Your task to perform on an android device: open app "eBay: The shopping marketplace" Image 0: 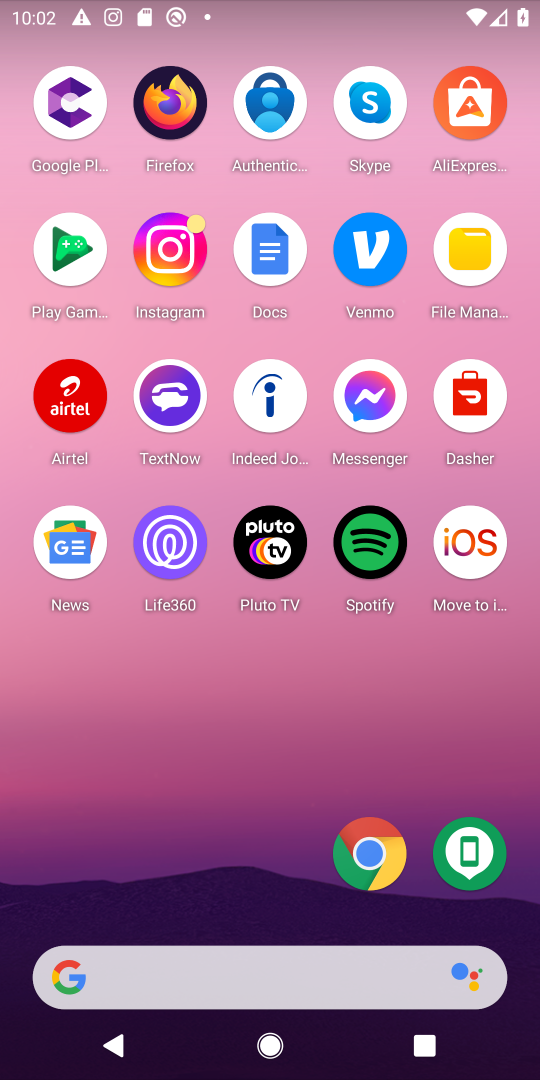
Step 0: drag from (213, 878) to (339, 44)
Your task to perform on an android device: open app "eBay: The shopping marketplace" Image 1: 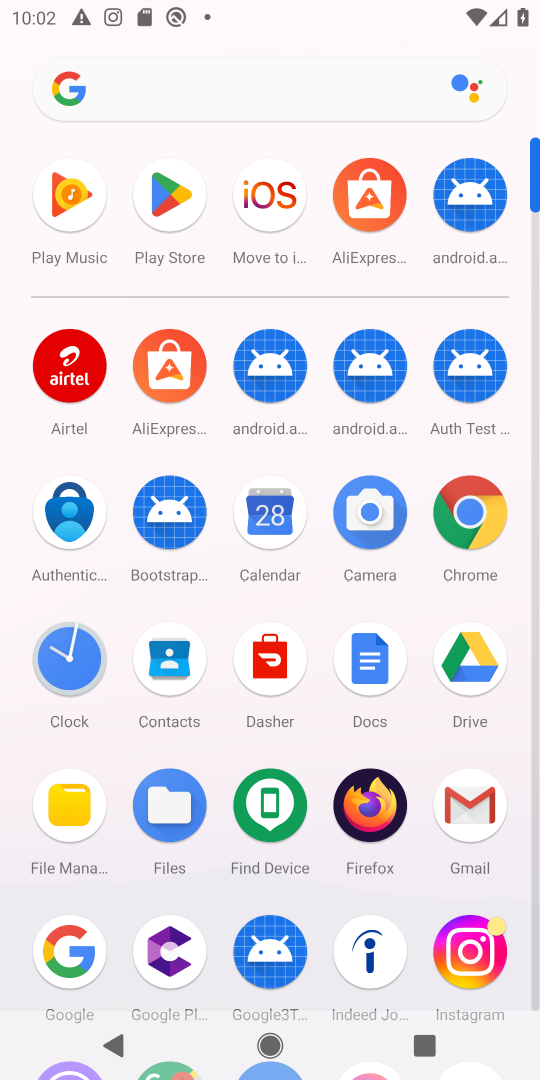
Step 1: click (189, 205)
Your task to perform on an android device: open app "eBay: The shopping marketplace" Image 2: 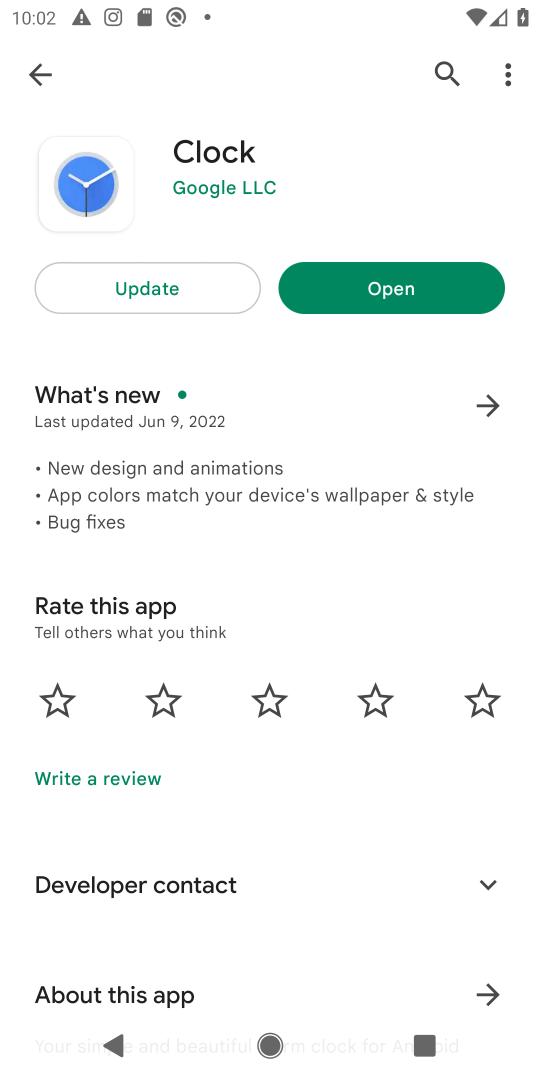
Step 2: click (42, 72)
Your task to perform on an android device: open app "eBay: The shopping marketplace" Image 3: 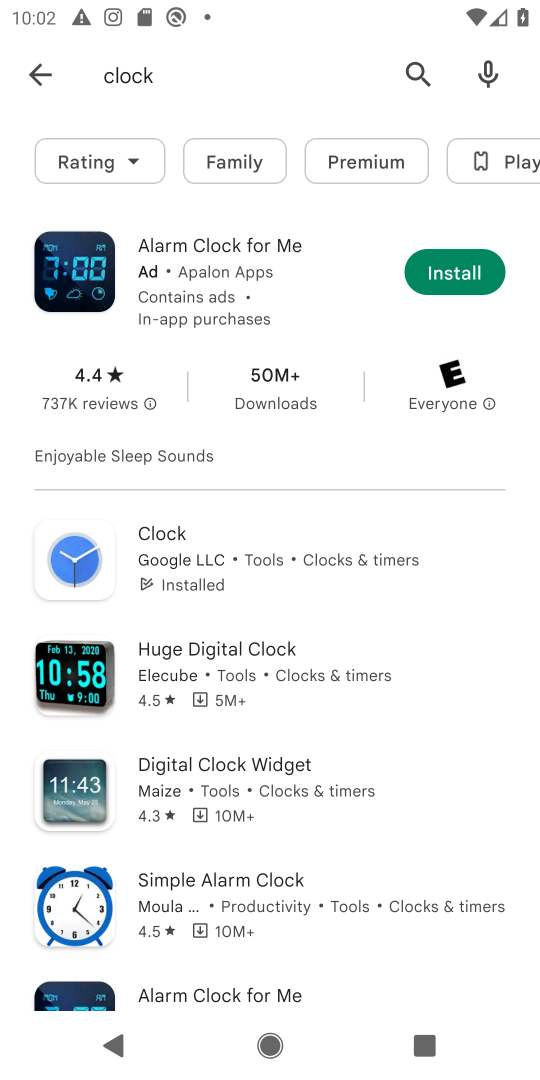
Step 3: click (39, 79)
Your task to perform on an android device: open app "eBay: The shopping marketplace" Image 4: 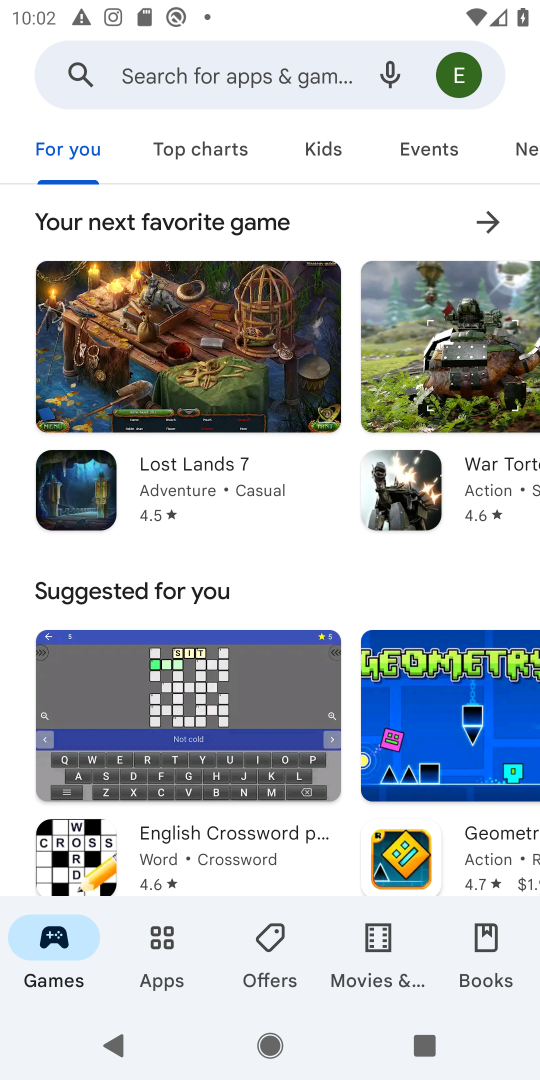
Step 4: click (161, 79)
Your task to perform on an android device: open app "eBay: The shopping marketplace" Image 5: 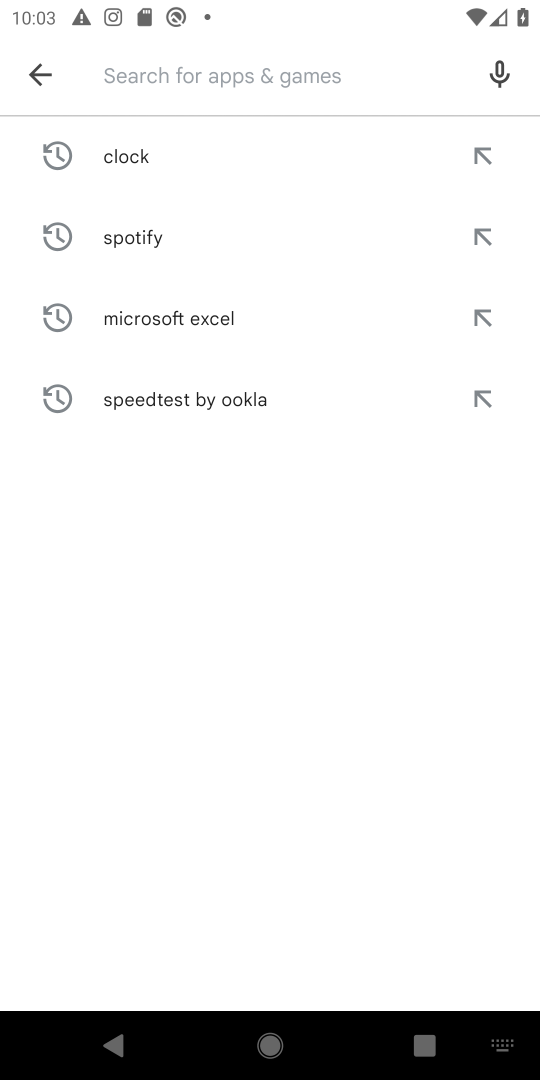
Step 5: type "eBay"
Your task to perform on an android device: open app "eBay: The shopping marketplace" Image 6: 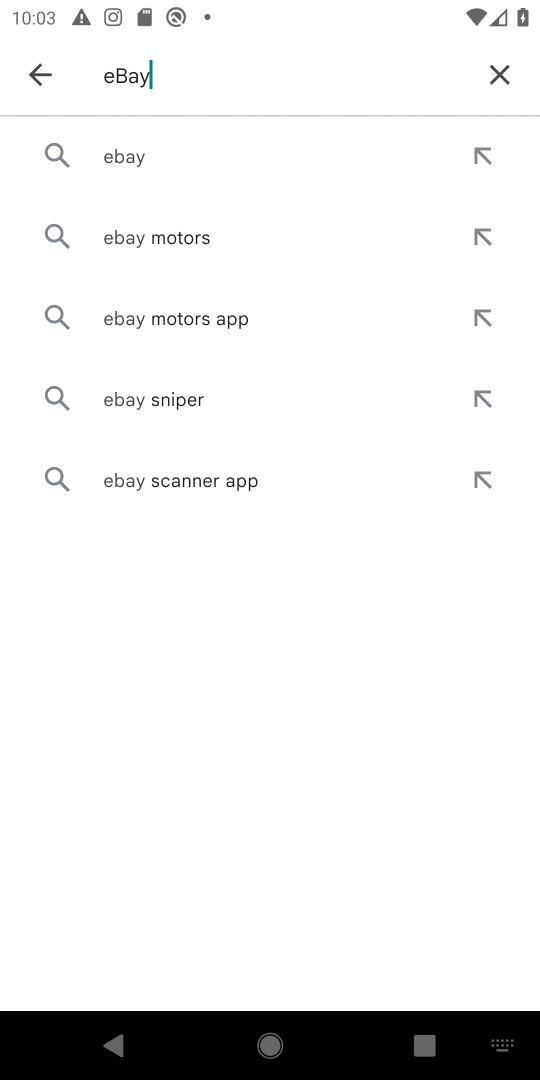
Step 6: click (137, 144)
Your task to perform on an android device: open app "eBay: The shopping marketplace" Image 7: 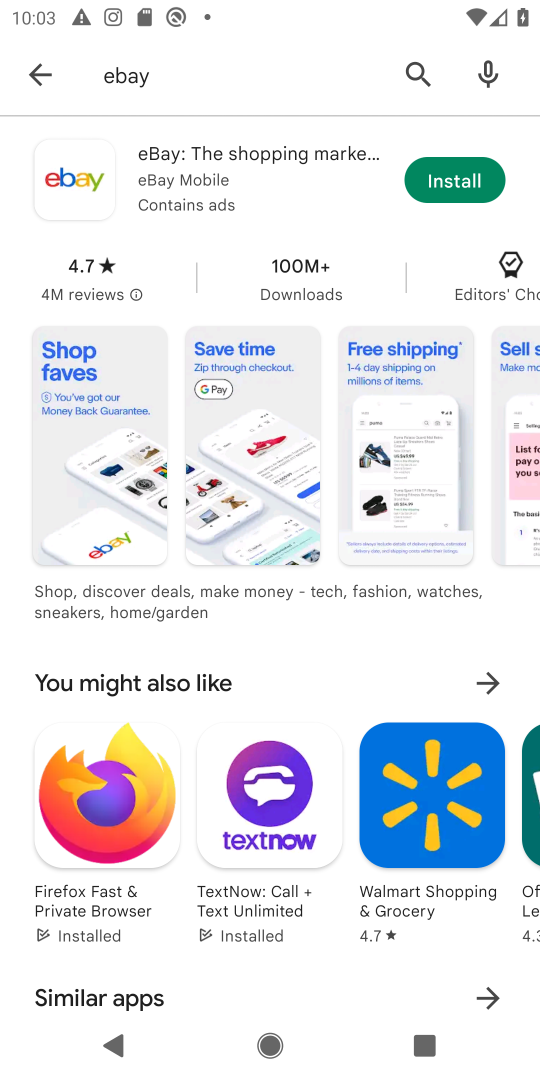
Step 7: click (457, 168)
Your task to perform on an android device: open app "eBay: The shopping marketplace" Image 8: 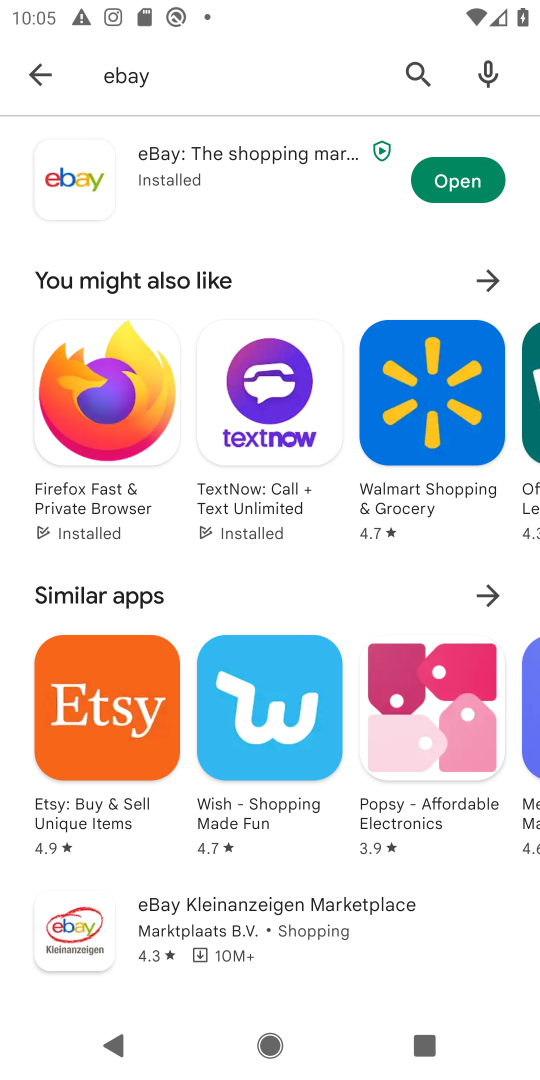
Step 8: click (446, 172)
Your task to perform on an android device: open app "eBay: The shopping marketplace" Image 9: 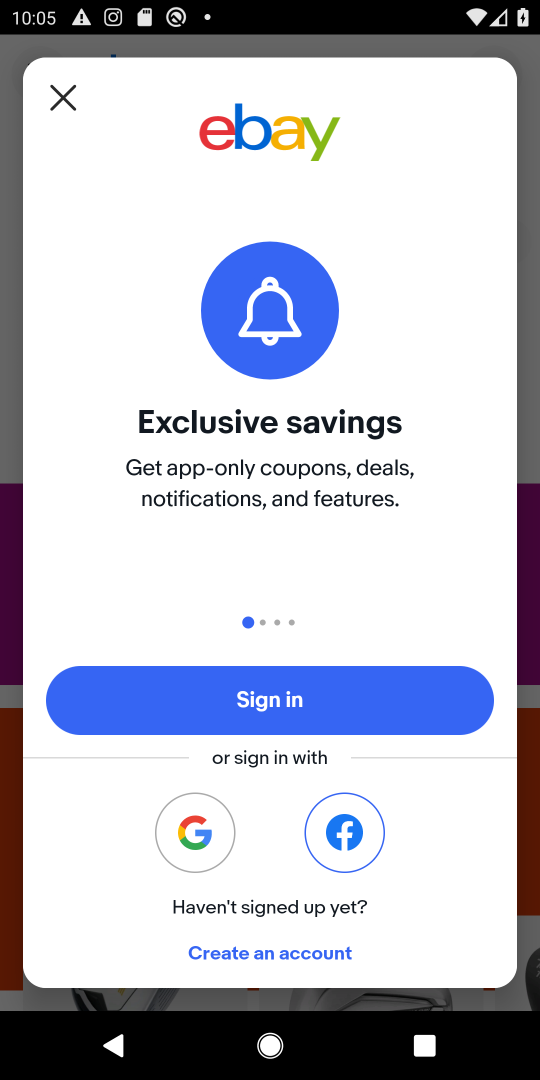
Step 9: task complete